Your task to perform on an android device: allow cookies in the chrome app Image 0: 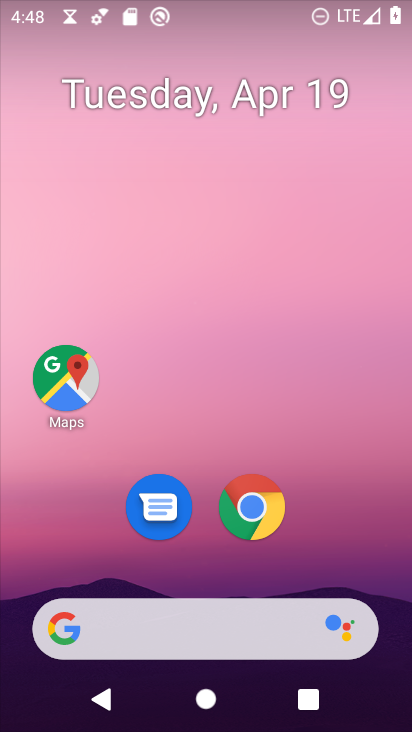
Step 0: click (252, 513)
Your task to perform on an android device: allow cookies in the chrome app Image 1: 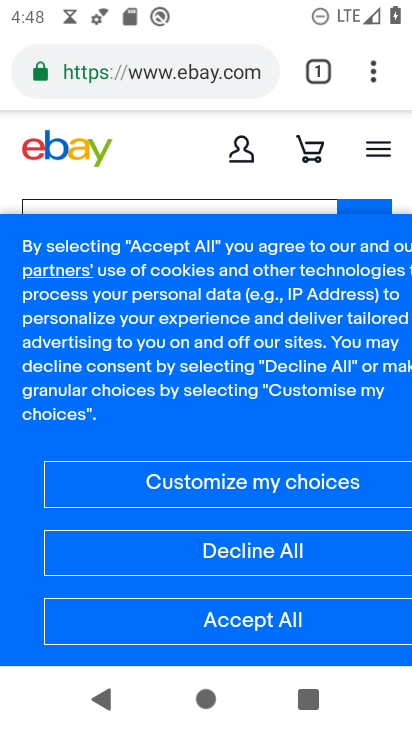
Step 1: click (376, 72)
Your task to perform on an android device: allow cookies in the chrome app Image 2: 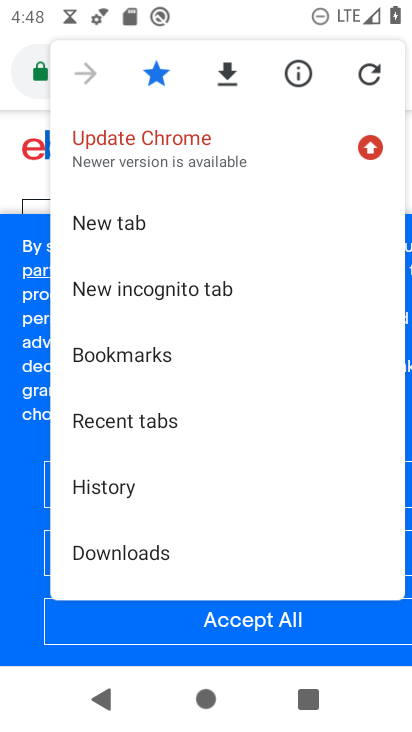
Step 2: drag from (217, 506) to (213, 420)
Your task to perform on an android device: allow cookies in the chrome app Image 3: 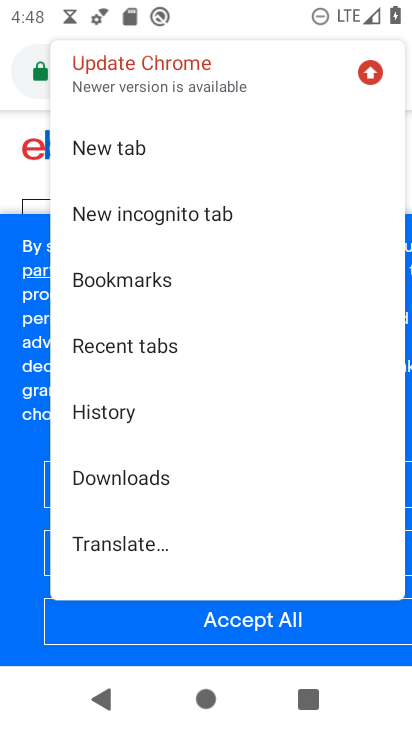
Step 3: drag from (207, 497) to (205, 444)
Your task to perform on an android device: allow cookies in the chrome app Image 4: 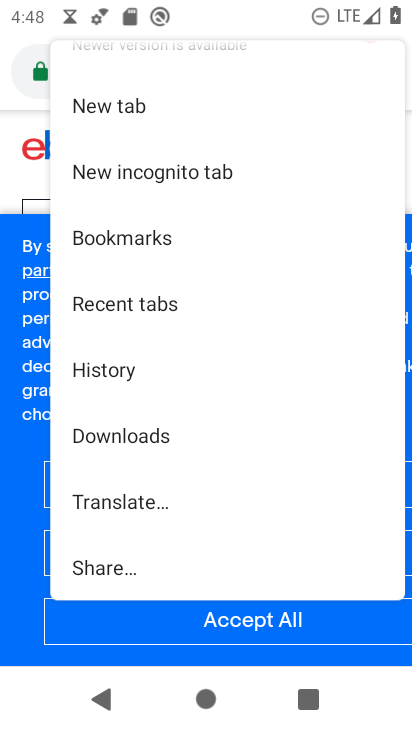
Step 4: drag from (198, 525) to (200, 459)
Your task to perform on an android device: allow cookies in the chrome app Image 5: 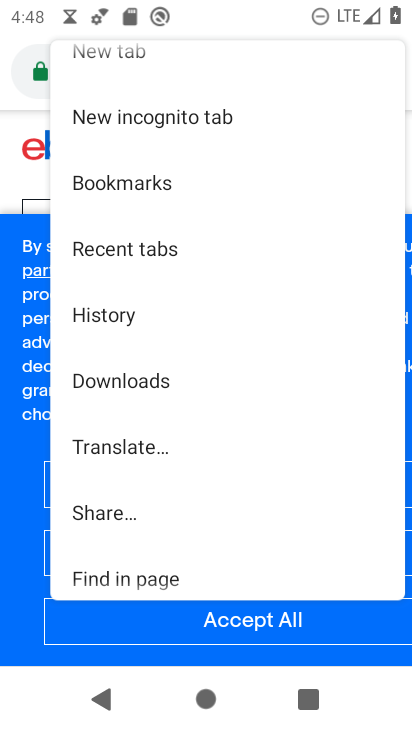
Step 5: drag from (200, 519) to (200, 455)
Your task to perform on an android device: allow cookies in the chrome app Image 6: 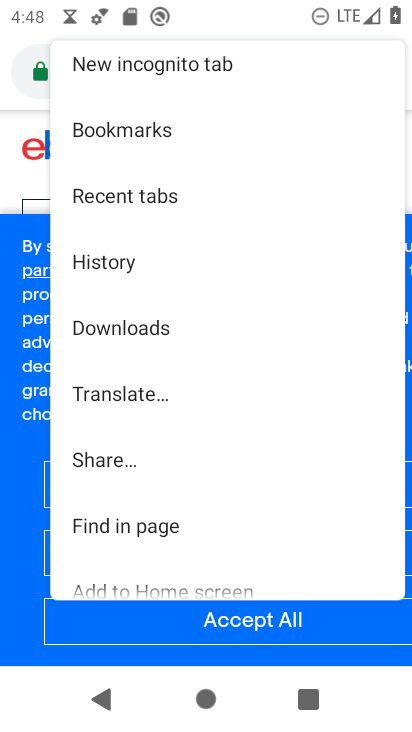
Step 6: drag from (185, 522) to (185, 473)
Your task to perform on an android device: allow cookies in the chrome app Image 7: 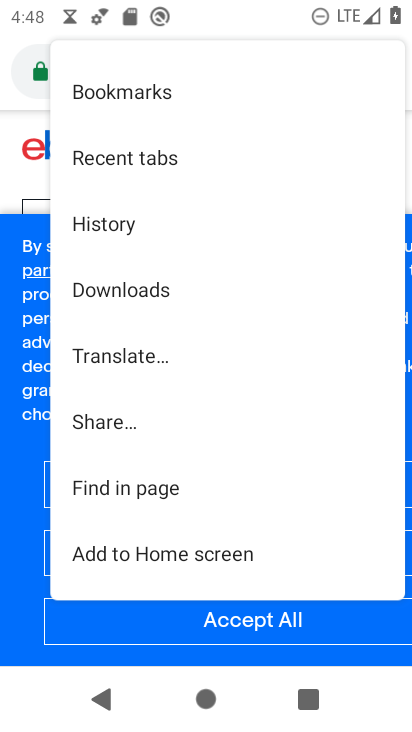
Step 7: drag from (188, 534) to (189, 478)
Your task to perform on an android device: allow cookies in the chrome app Image 8: 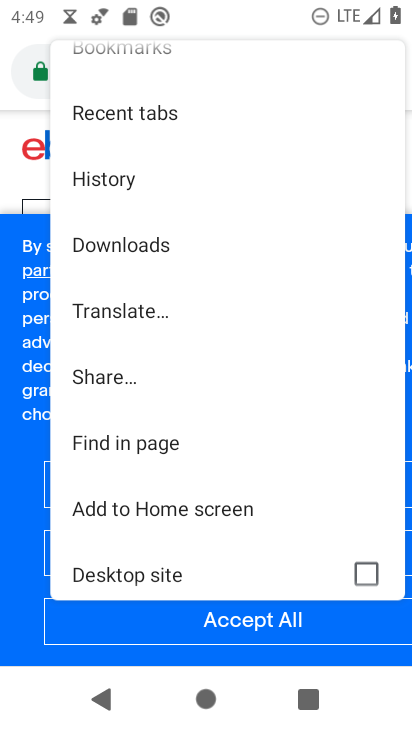
Step 8: drag from (192, 537) to (200, 466)
Your task to perform on an android device: allow cookies in the chrome app Image 9: 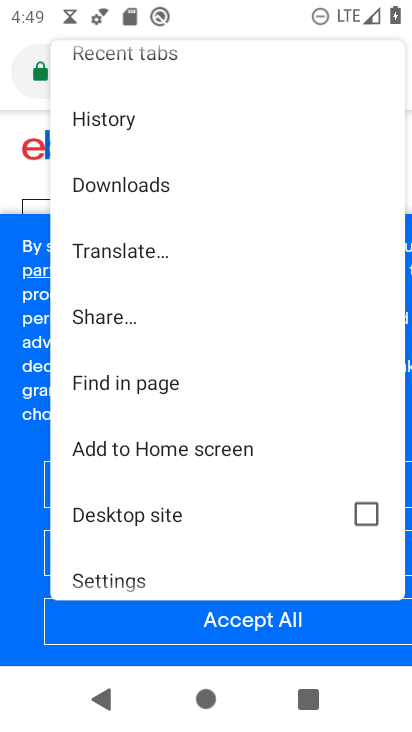
Step 9: drag from (204, 504) to (201, 444)
Your task to perform on an android device: allow cookies in the chrome app Image 10: 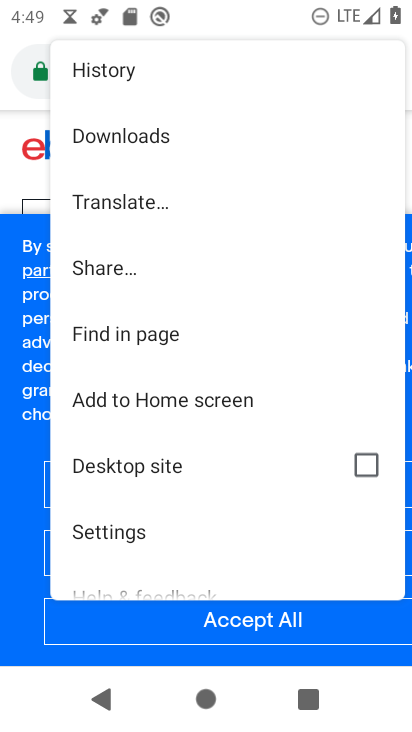
Step 10: click (184, 537)
Your task to perform on an android device: allow cookies in the chrome app Image 11: 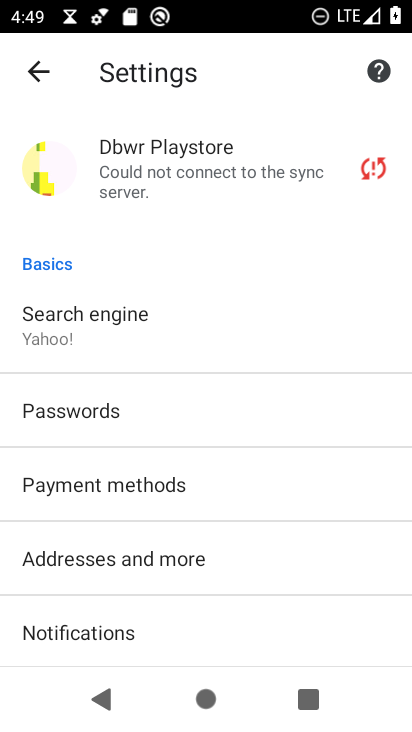
Step 11: drag from (177, 558) to (170, 491)
Your task to perform on an android device: allow cookies in the chrome app Image 12: 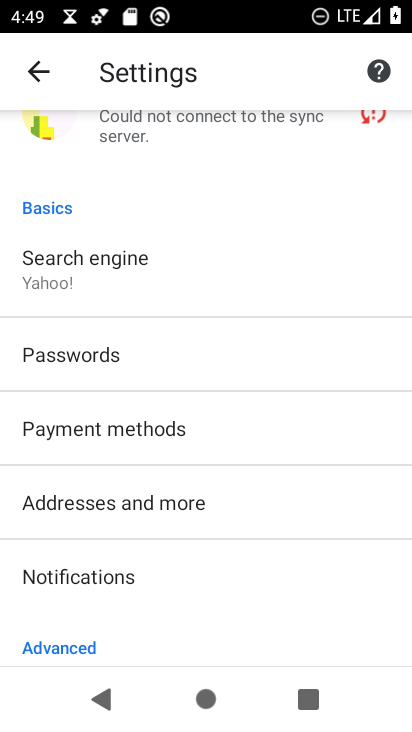
Step 12: drag from (171, 551) to (171, 502)
Your task to perform on an android device: allow cookies in the chrome app Image 13: 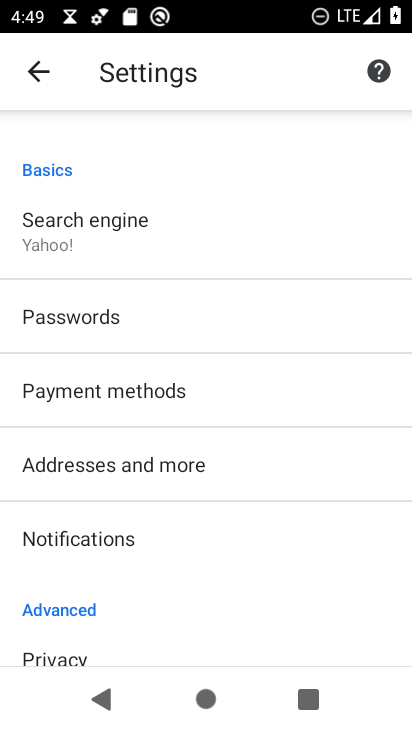
Step 13: drag from (171, 550) to (171, 501)
Your task to perform on an android device: allow cookies in the chrome app Image 14: 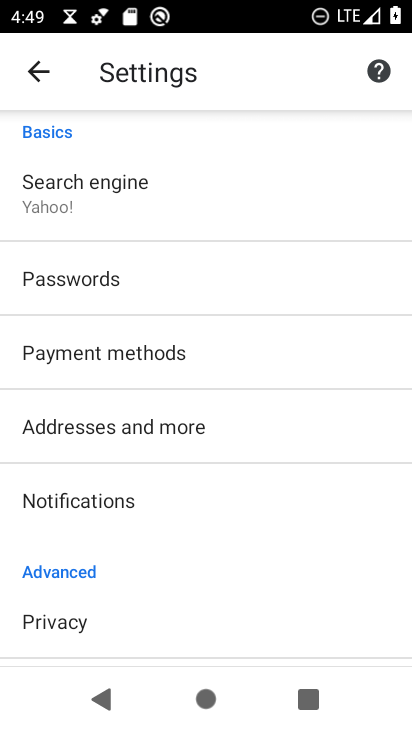
Step 14: drag from (190, 581) to (179, 495)
Your task to perform on an android device: allow cookies in the chrome app Image 15: 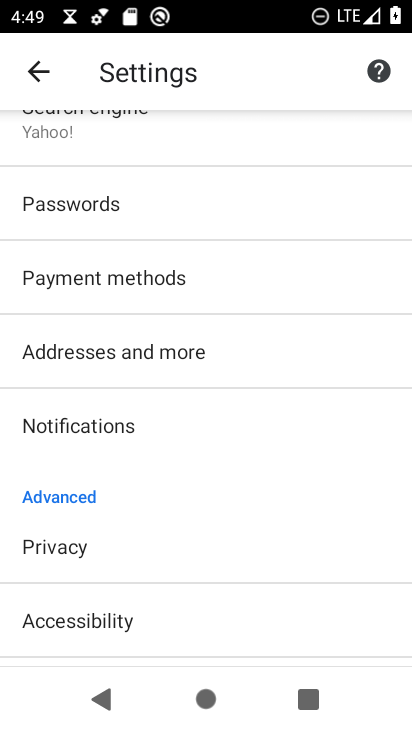
Step 15: drag from (202, 568) to (196, 502)
Your task to perform on an android device: allow cookies in the chrome app Image 16: 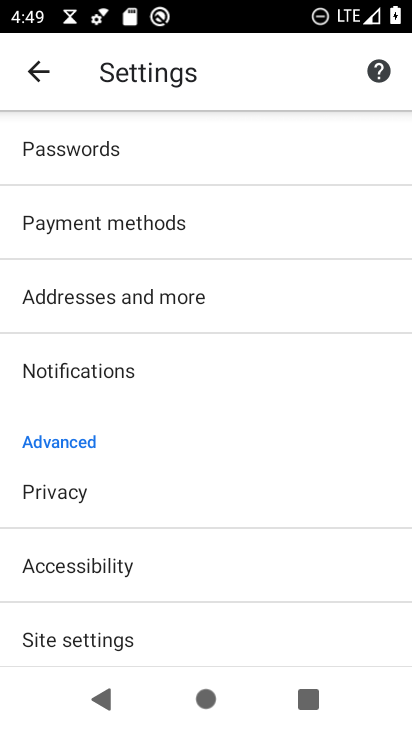
Step 16: click (191, 622)
Your task to perform on an android device: allow cookies in the chrome app Image 17: 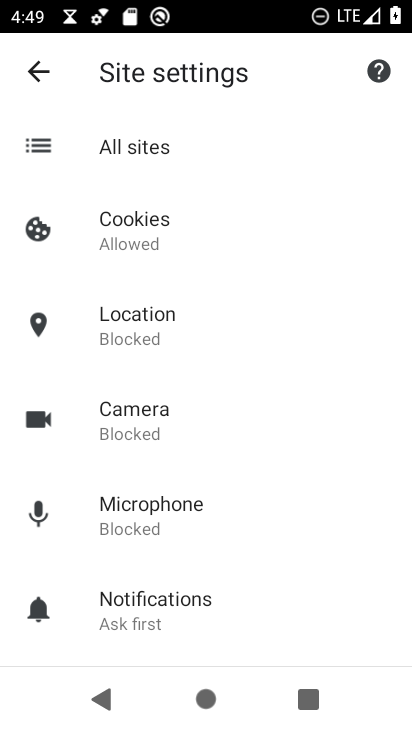
Step 17: click (176, 227)
Your task to perform on an android device: allow cookies in the chrome app Image 18: 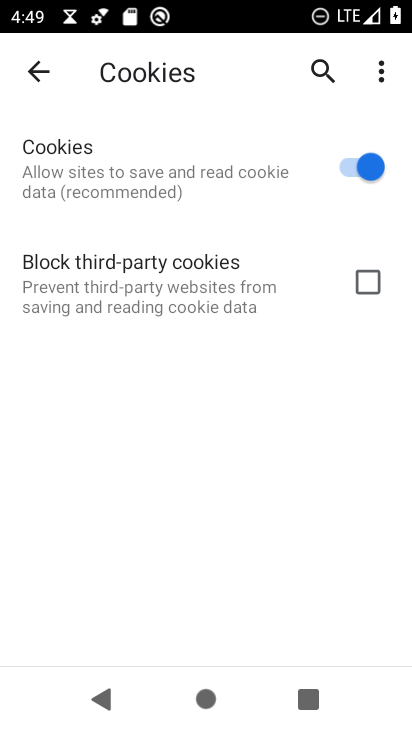
Step 18: task complete